Your task to perform on an android device: open sync settings in chrome Image 0: 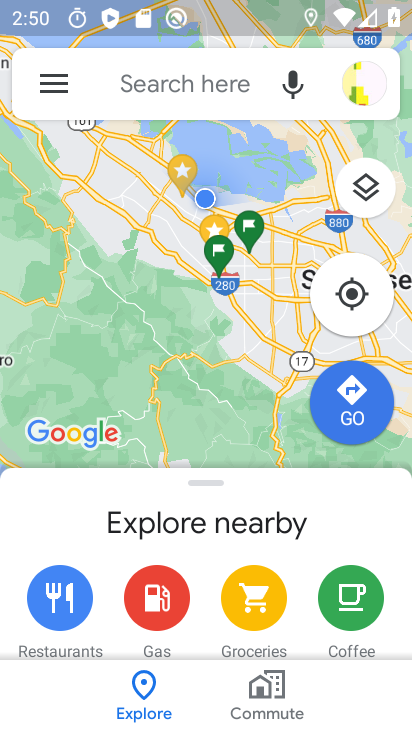
Step 0: press home button
Your task to perform on an android device: open sync settings in chrome Image 1: 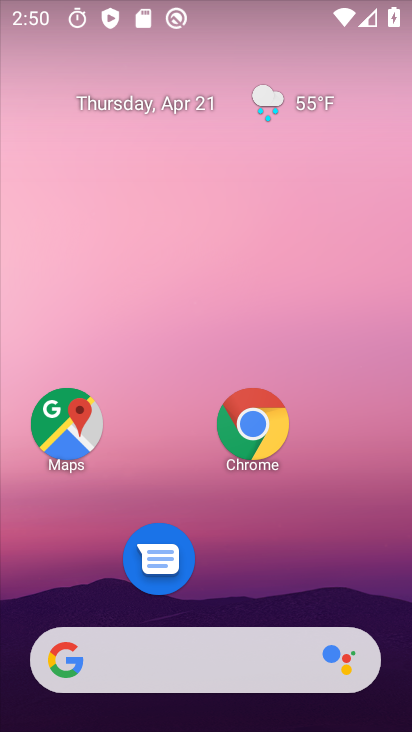
Step 1: click (250, 426)
Your task to perform on an android device: open sync settings in chrome Image 2: 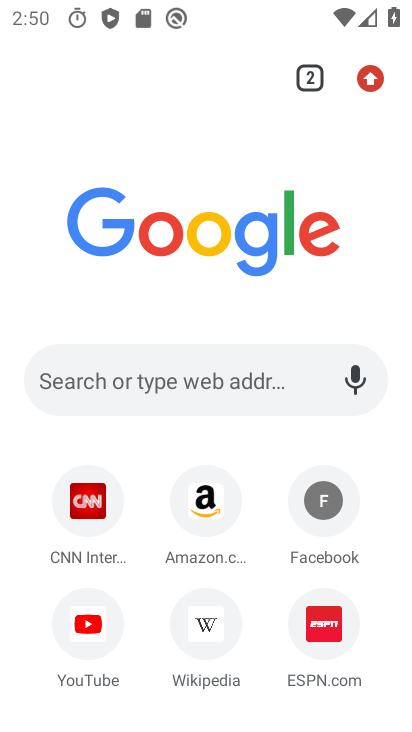
Step 2: click (370, 80)
Your task to perform on an android device: open sync settings in chrome Image 3: 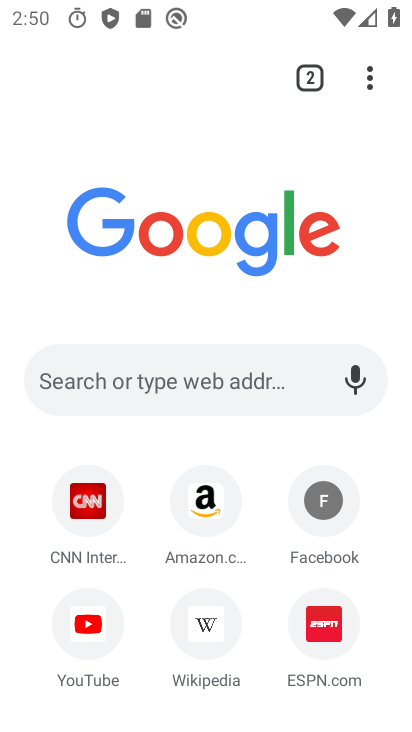
Step 3: click (366, 79)
Your task to perform on an android device: open sync settings in chrome Image 4: 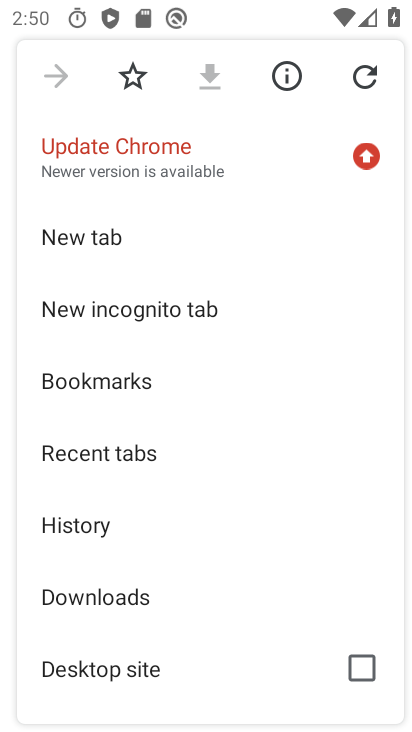
Step 4: drag from (118, 436) to (175, 187)
Your task to perform on an android device: open sync settings in chrome Image 5: 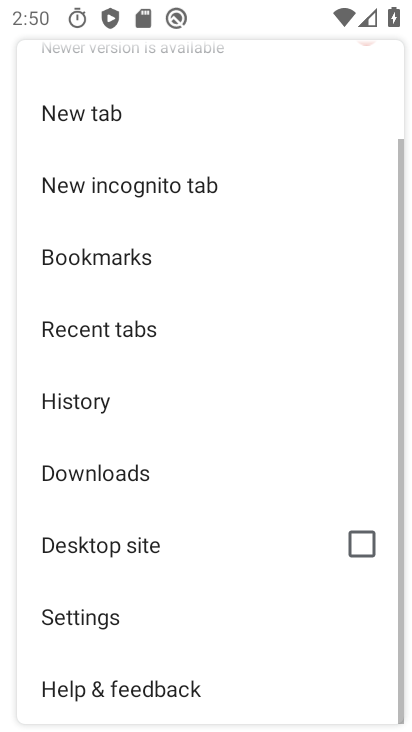
Step 5: click (97, 610)
Your task to perform on an android device: open sync settings in chrome Image 6: 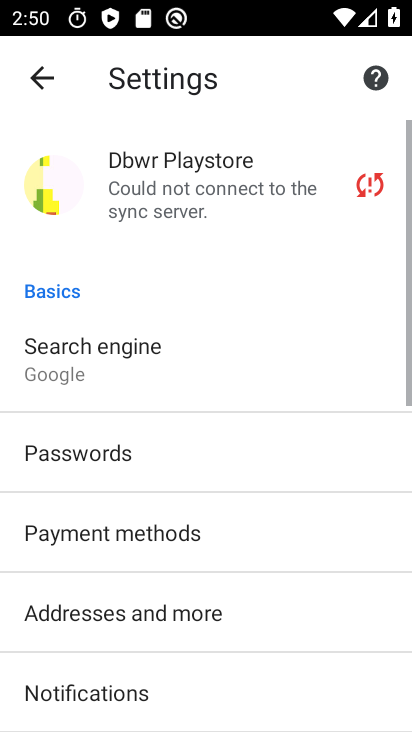
Step 6: drag from (241, 499) to (223, 101)
Your task to perform on an android device: open sync settings in chrome Image 7: 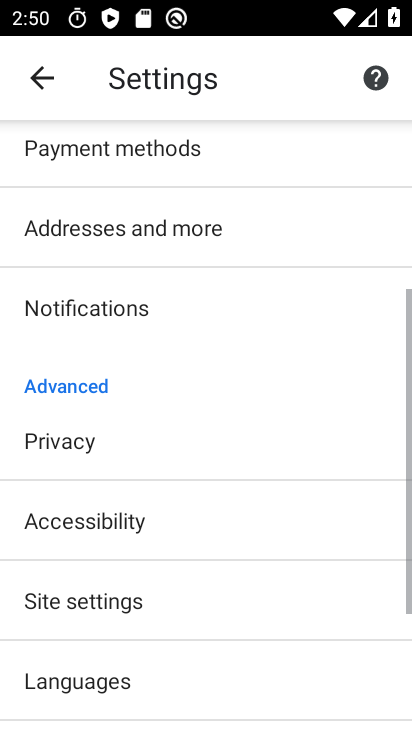
Step 7: drag from (170, 676) to (187, 282)
Your task to perform on an android device: open sync settings in chrome Image 8: 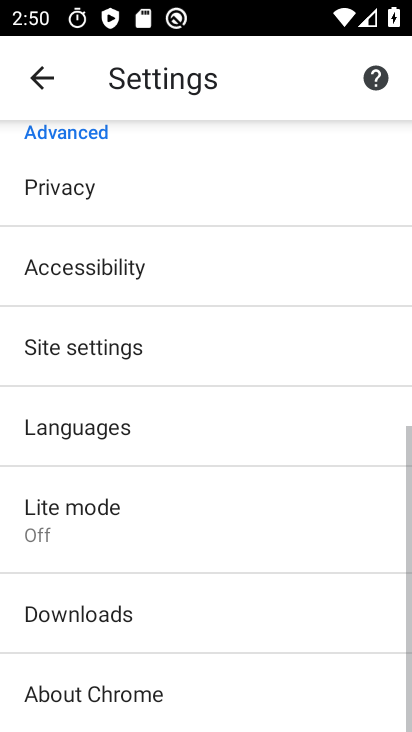
Step 8: drag from (204, 629) to (228, 509)
Your task to perform on an android device: open sync settings in chrome Image 9: 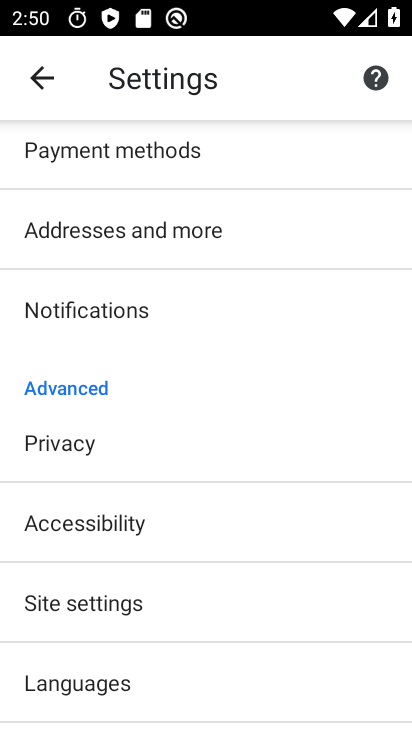
Step 9: click (103, 611)
Your task to perform on an android device: open sync settings in chrome Image 10: 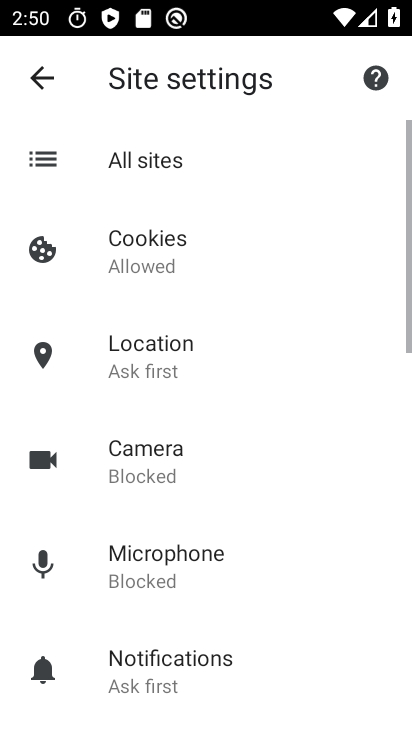
Step 10: drag from (295, 515) to (269, 181)
Your task to perform on an android device: open sync settings in chrome Image 11: 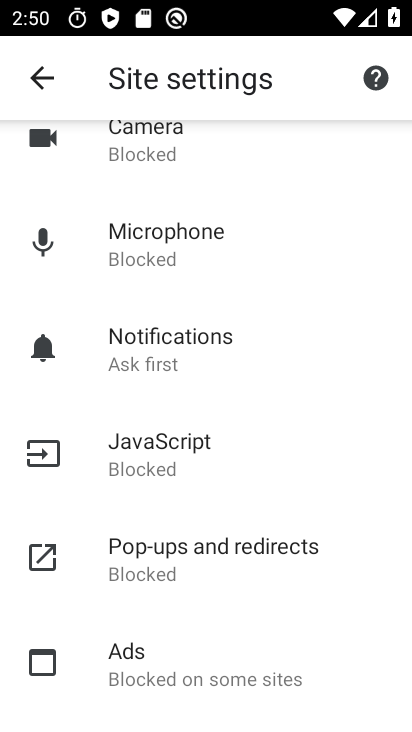
Step 11: drag from (222, 571) to (197, 255)
Your task to perform on an android device: open sync settings in chrome Image 12: 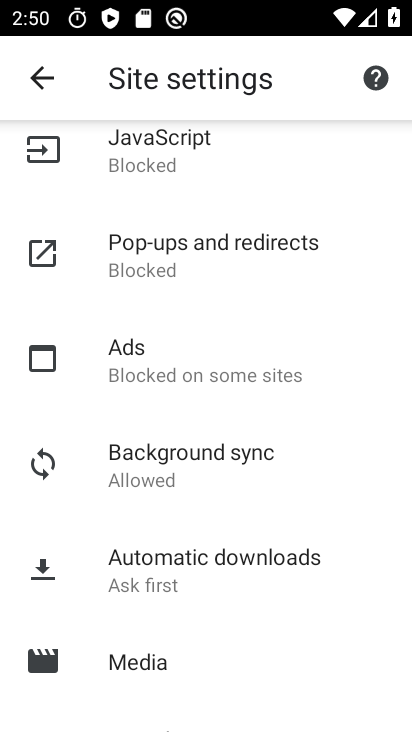
Step 12: click (144, 460)
Your task to perform on an android device: open sync settings in chrome Image 13: 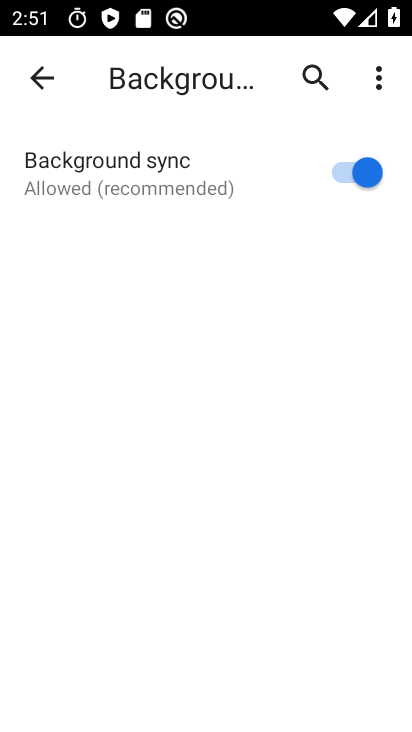
Step 13: task complete